Your task to perform on an android device: check google app version Image 0: 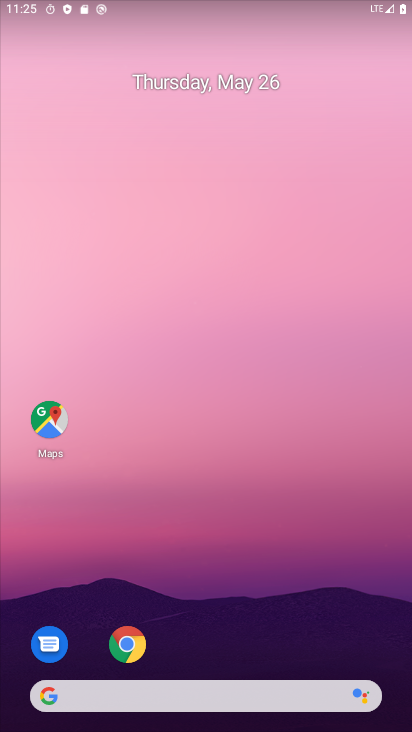
Step 0: drag from (127, 727) to (121, 108)
Your task to perform on an android device: check google app version Image 1: 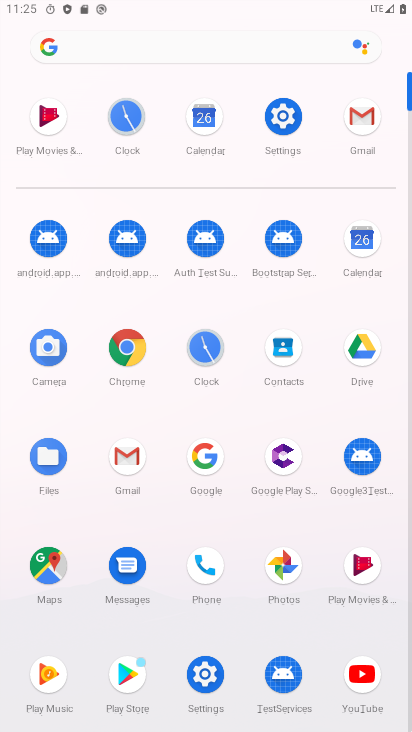
Step 1: click (201, 463)
Your task to perform on an android device: check google app version Image 2: 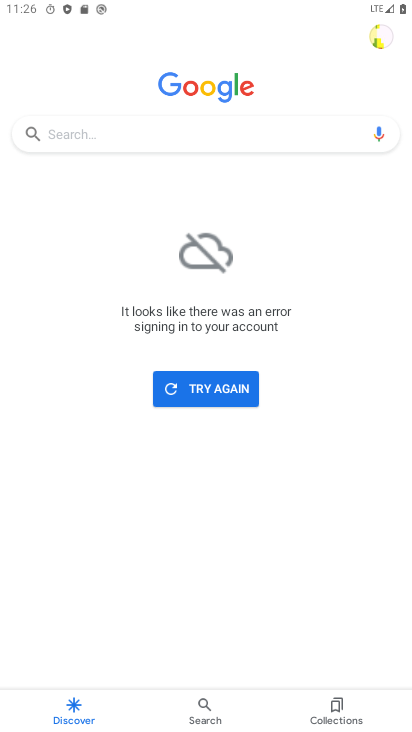
Step 2: click (383, 36)
Your task to perform on an android device: check google app version Image 3: 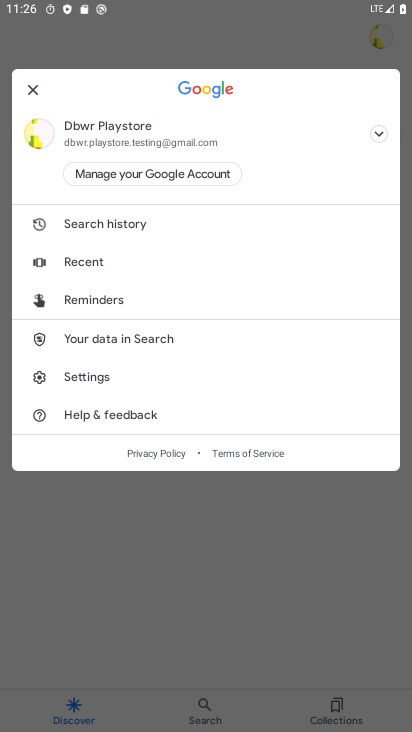
Step 3: click (67, 381)
Your task to perform on an android device: check google app version Image 4: 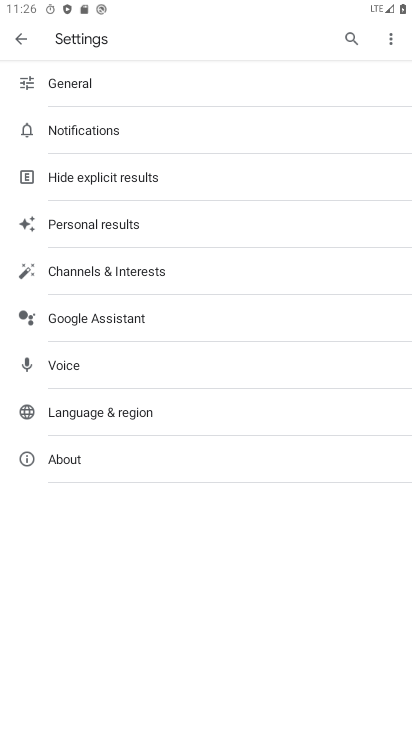
Step 4: click (74, 468)
Your task to perform on an android device: check google app version Image 5: 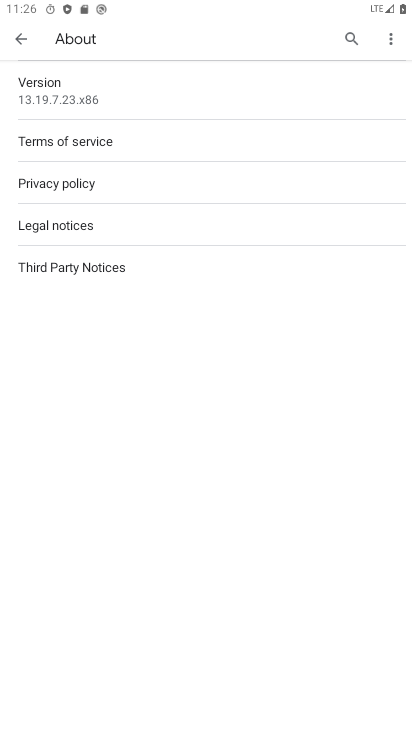
Step 5: task complete